Your task to perform on an android device: Open maps Image 0: 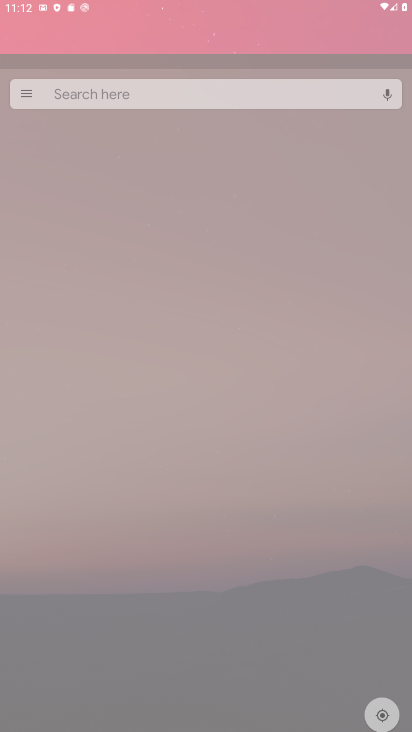
Step 0: click (255, 213)
Your task to perform on an android device: Open maps Image 1: 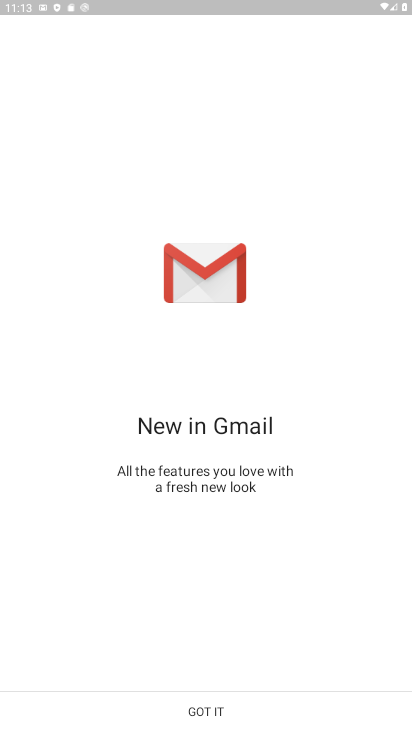
Step 1: press home button
Your task to perform on an android device: Open maps Image 2: 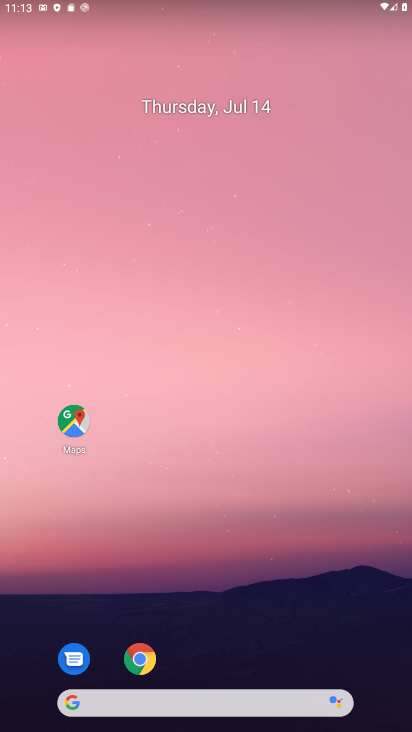
Step 2: drag from (202, 652) to (251, 298)
Your task to perform on an android device: Open maps Image 3: 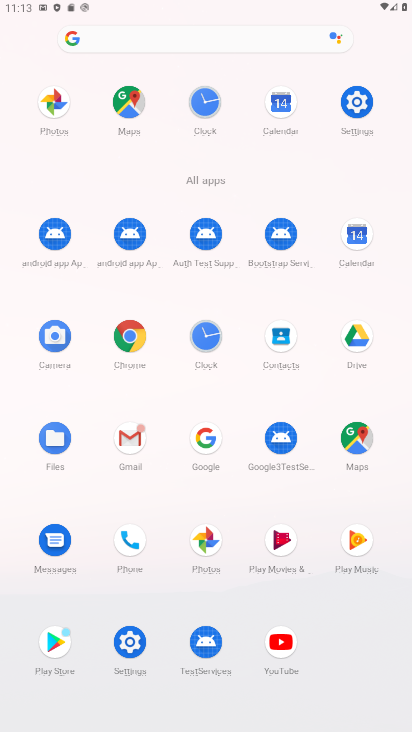
Step 3: click (347, 434)
Your task to perform on an android device: Open maps Image 4: 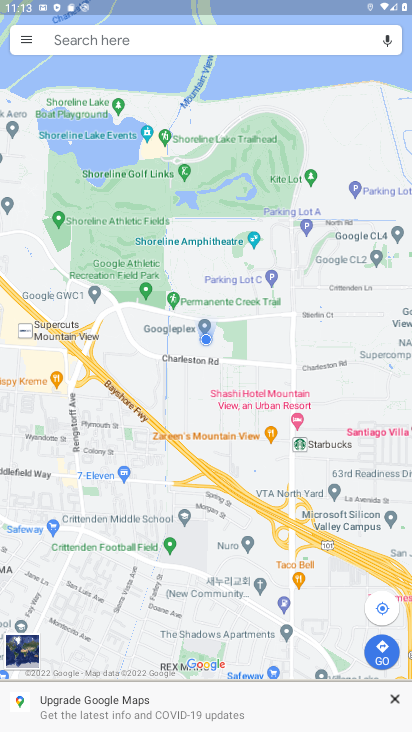
Step 4: task complete